Your task to perform on an android device: Go to Android settings Image 0: 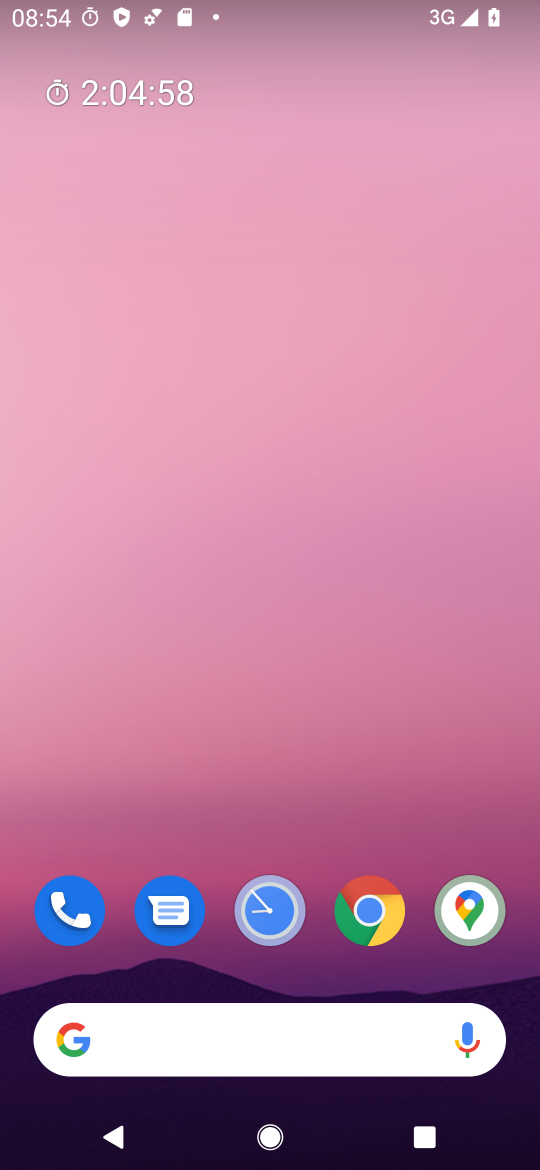
Step 0: drag from (331, 1016) to (112, 107)
Your task to perform on an android device: Go to Android settings Image 1: 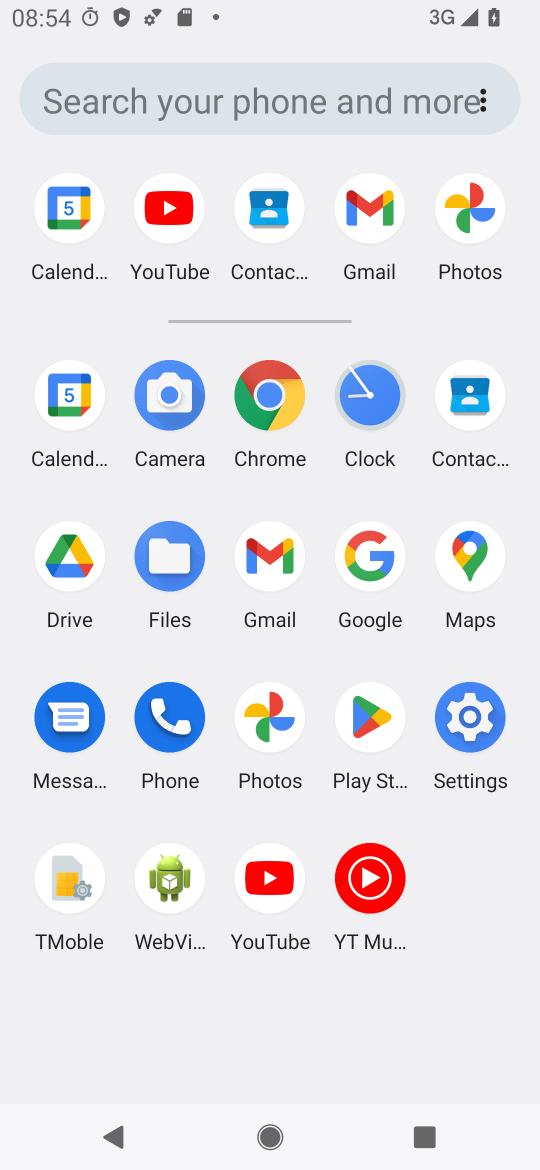
Step 1: click (473, 706)
Your task to perform on an android device: Go to Android settings Image 2: 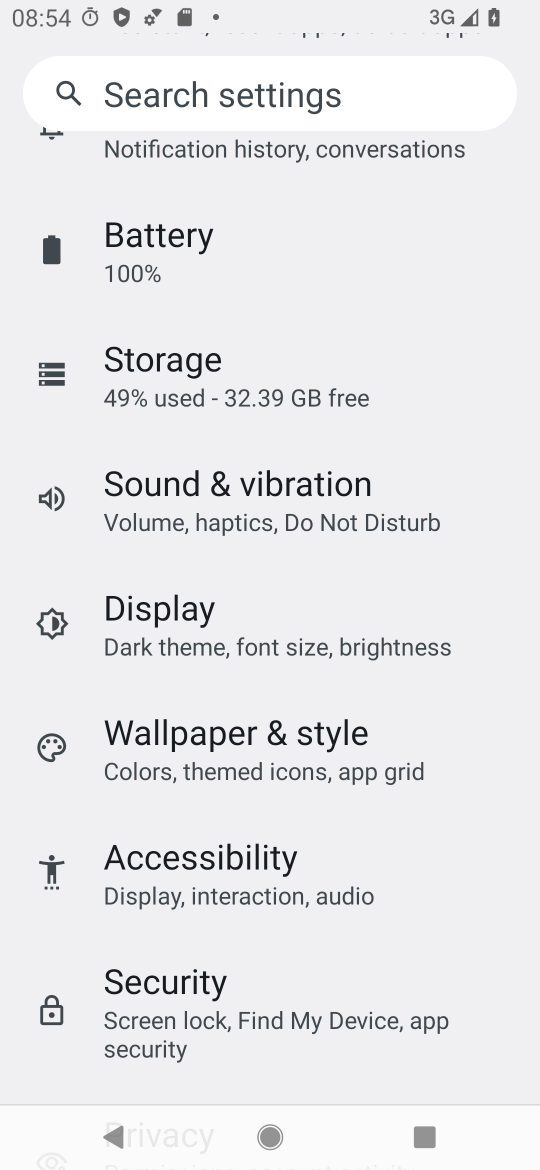
Step 2: drag from (456, 1011) to (426, 294)
Your task to perform on an android device: Go to Android settings Image 3: 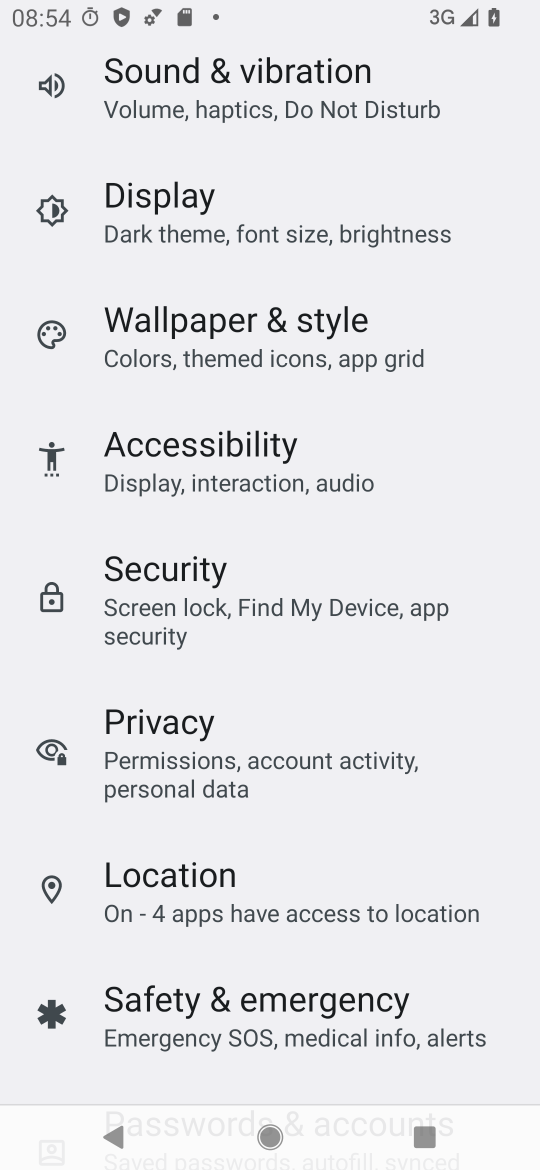
Step 3: drag from (466, 963) to (515, 514)
Your task to perform on an android device: Go to Android settings Image 4: 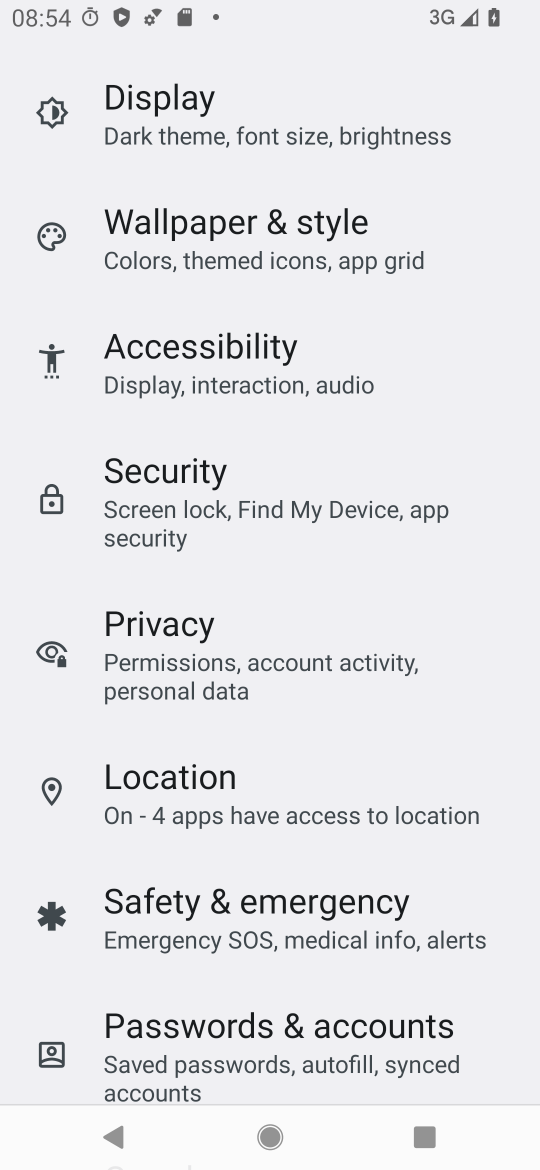
Step 4: drag from (494, 1065) to (507, 307)
Your task to perform on an android device: Go to Android settings Image 5: 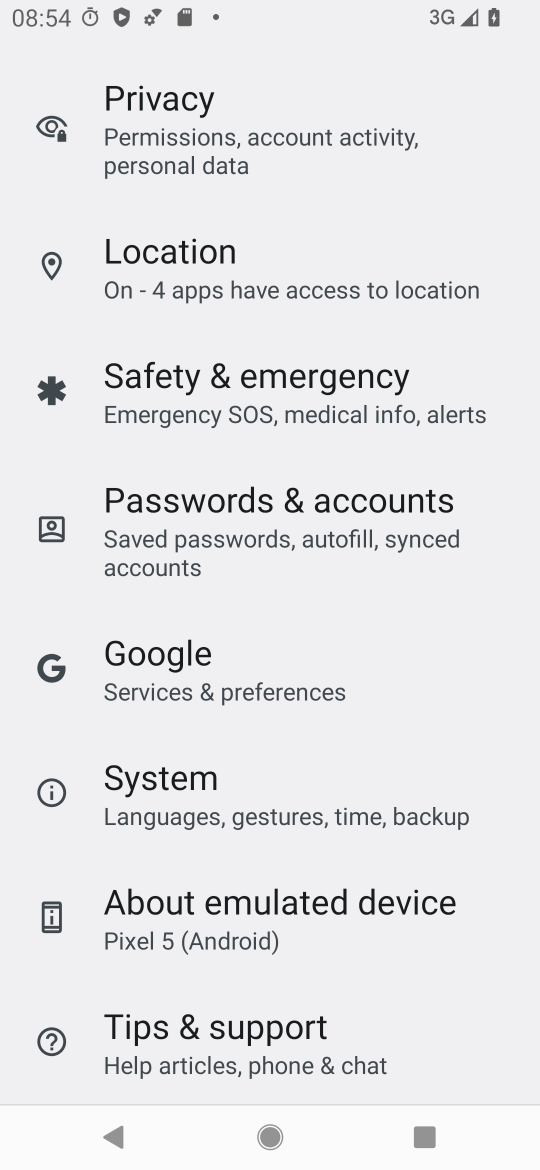
Step 5: click (443, 894)
Your task to perform on an android device: Go to Android settings Image 6: 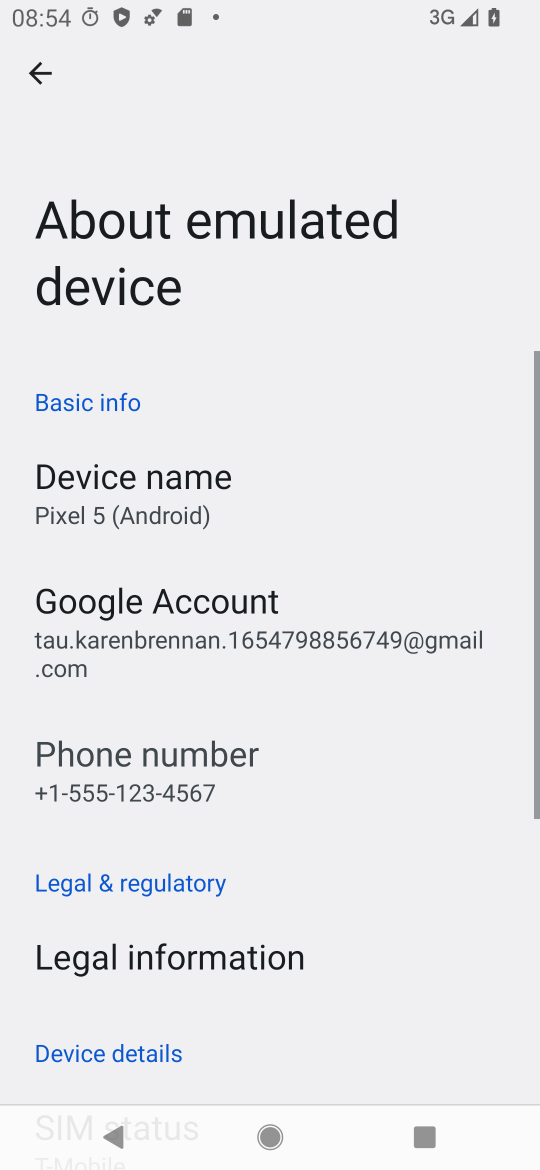
Step 6: task complete